Your task to perform on an android device: change notification settings in the gmail app Image 0: 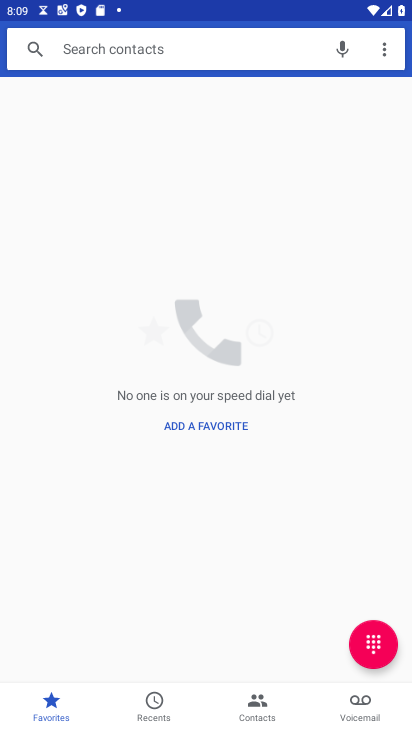
Step 0: press home button
Your task to perform on an android device: change notification settings in the gmail app Image 1: 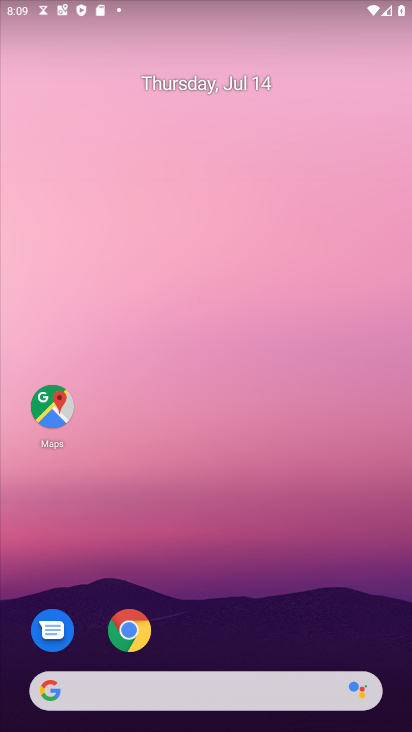
Step 1: drag from (301, 574) to (169, 17)
Your task to perform on an android device: change notification settings in the gmail app Image 2: 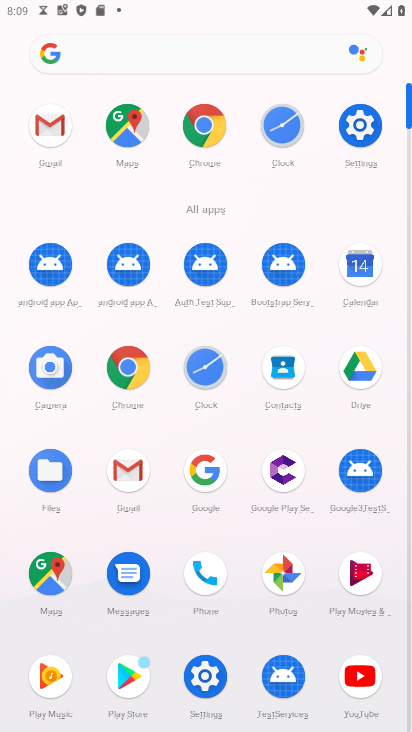
Step 2: click (44, 125)
Your task to perform on an android device: change notification settings in the gmail app Image 3: 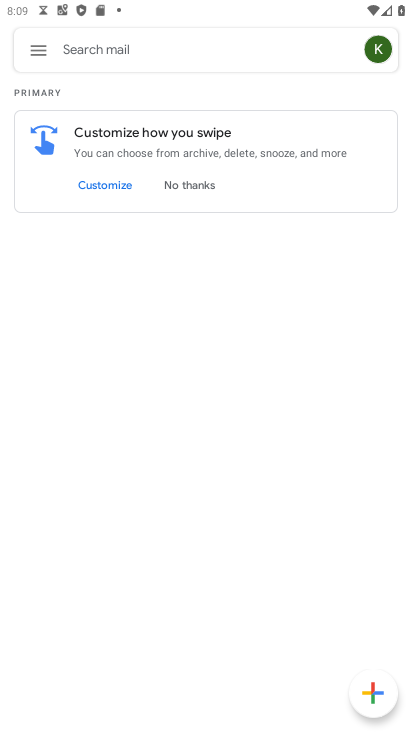
Step 3: click (35, 47)
Your task to perform on an android device: change notification settings in the gmail app Image 4: 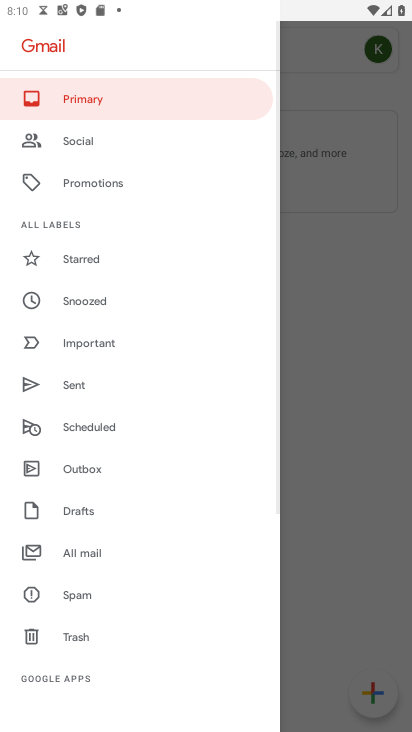
Step 4: drag from (101, 639) to (135, 217)
Your task to perform on an android device: change notification settings in the gmail app Image 5: 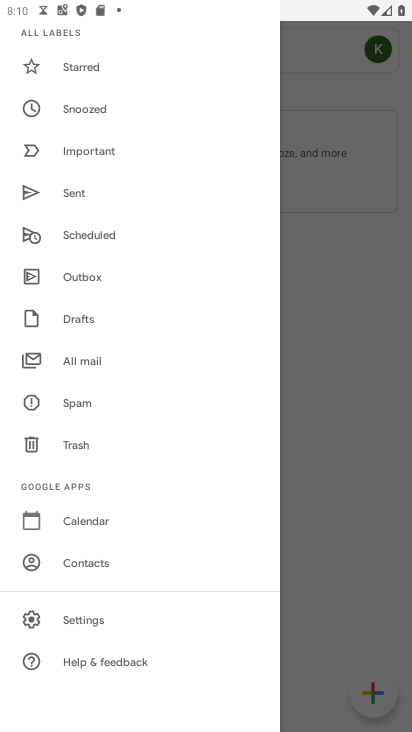
Step 5: click (152, 618)
Your task to perform on an android device: change notification settings in the gmail app Image 6: 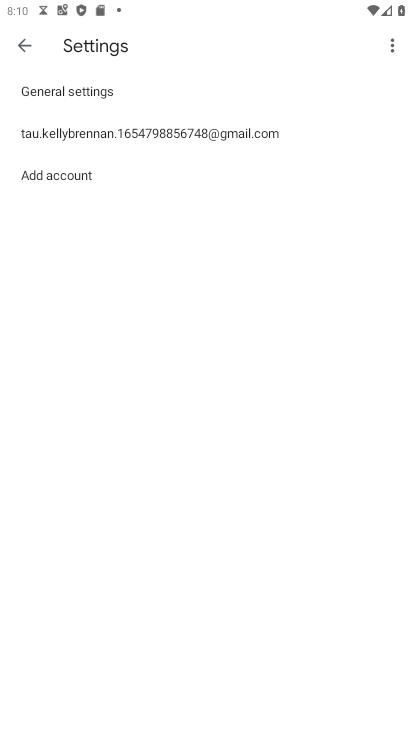
Step 6: click (247, 130)
Your task to perform on an android device: change notification settings in the gmail app Image 7: 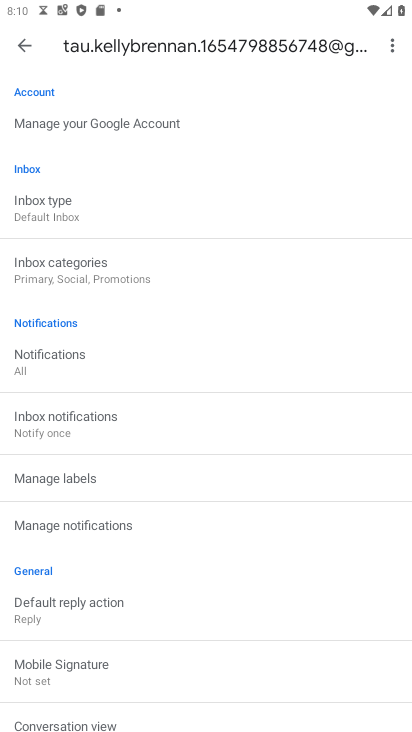
Step 7: click (50, 530)
Your task to perform on an android device: change notification settings in the gmail app Image 8: 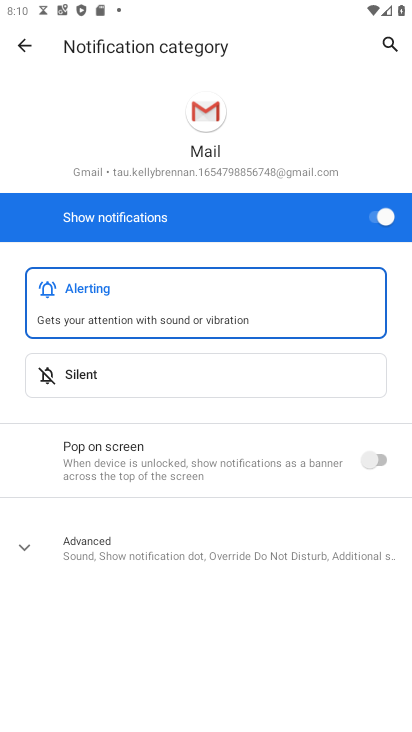
Step 8: click (379, 211)
Your task to perform on an android device: change notification settings in the gmail app Image 9: 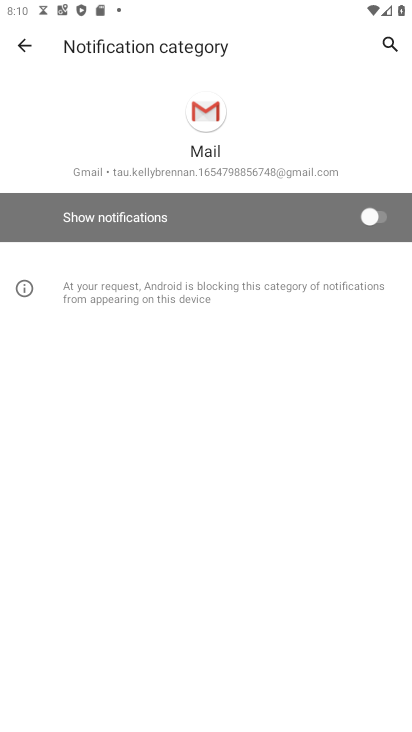
Step 9: task complete